Your task to perform on an android device: turn pop-ups off in chrome Image 0: 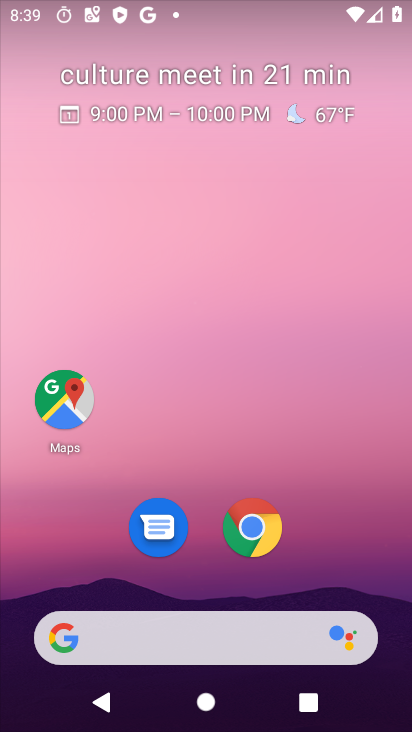
Step 0: click (259, 529)
Your task to perform on an android device: turn pop-ups off in chrome Image 1: 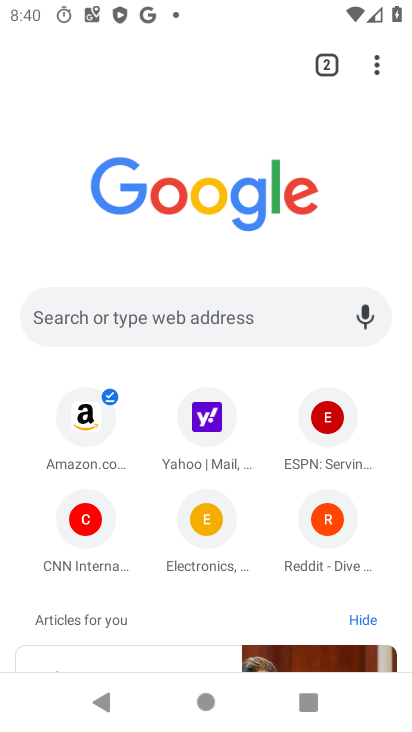
Step 1: click (376, 67)
Your task to perform on an android device: turn pop-ups off in chrome Image 2: 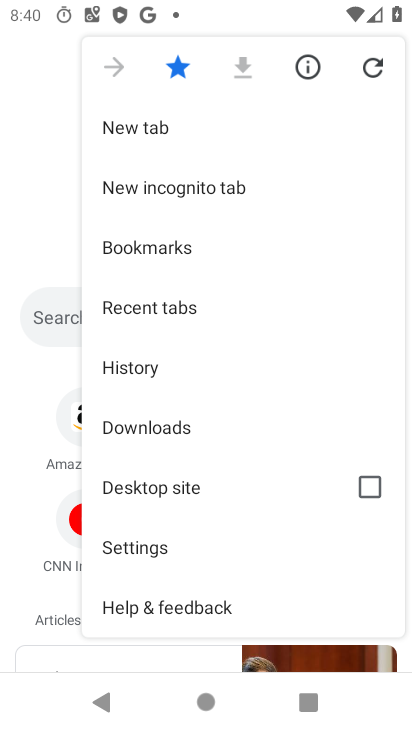
Step 2: click (142, 549)
Your task to perform on an android device: turn pop-ups off in chrome Image 3: 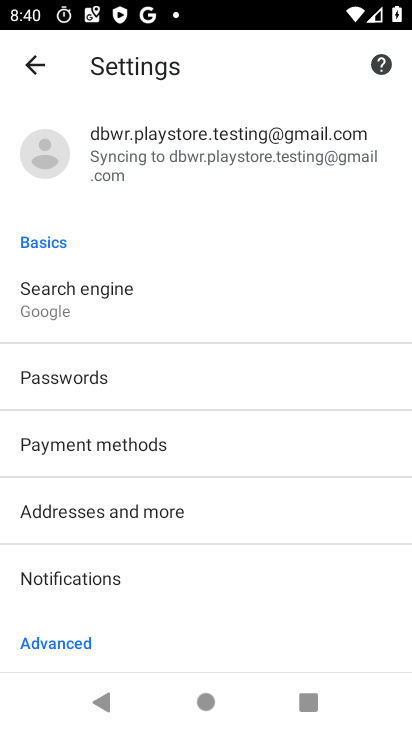
Step 3: drag from (134, 655) to (148, 358)
Your task to perform on an android device: turn pop-ups off in chrome Image 4: 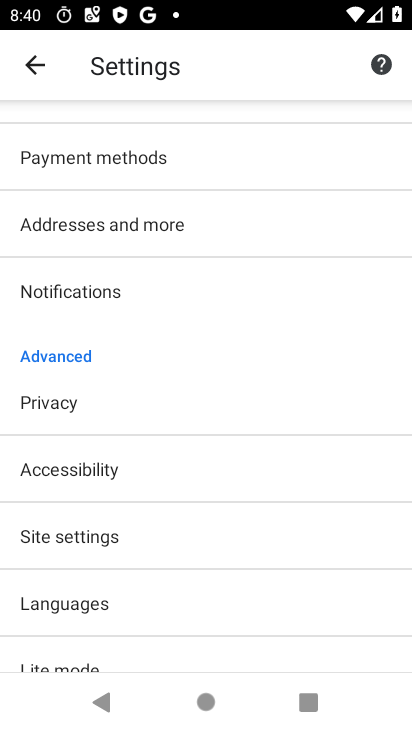
Step 4: click (76, 534)
Your task to perform on an android device: turn pop-ups off in chrome Image 5: 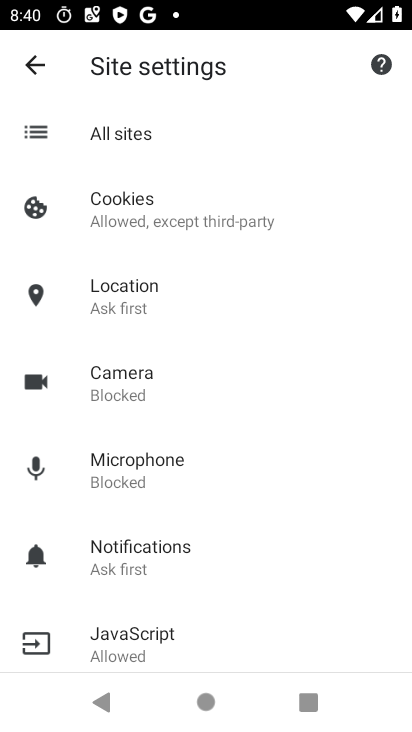
Step 5: drag from (161, 661) to (188, 279)
Your task to perform on an android device: turn pop-ups off in chrome Image 6: 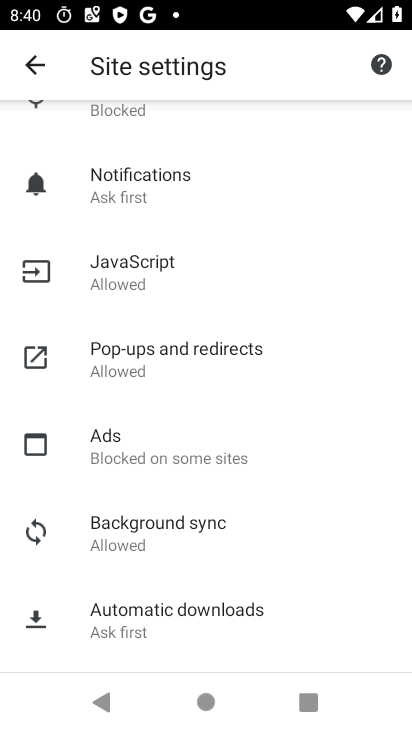
Step 6: click (156, 354)
Your task to perform on an android device: turn pop-ups off in chrome Image 7: 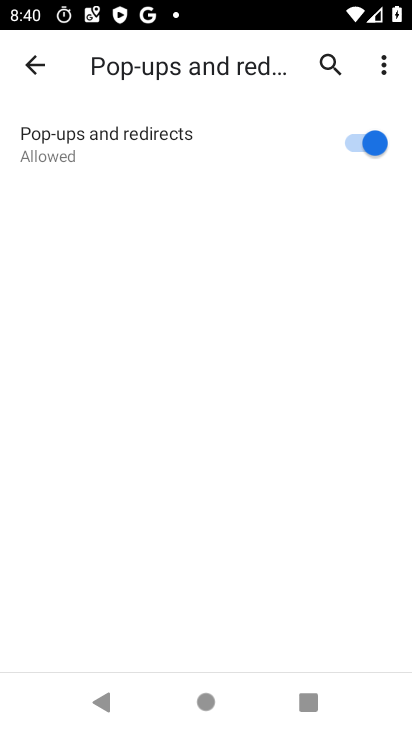
Step 7: click (357, 143)
Your task to perform on an android device: turn pop-ups off in chrome Image 8: 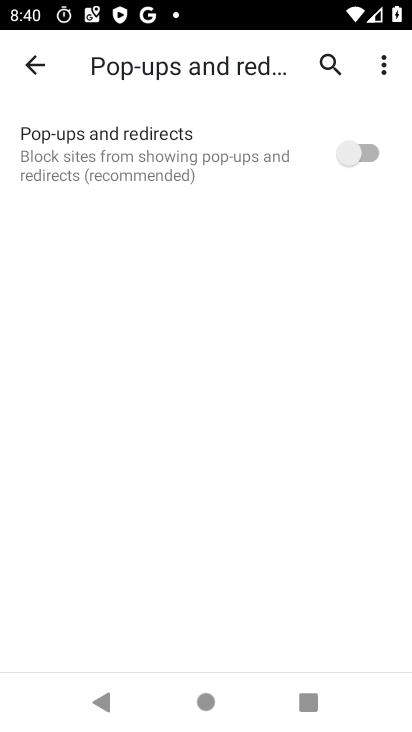
Step 8: task complete